Your task to perform on an android device: Go to display settings Image 0: 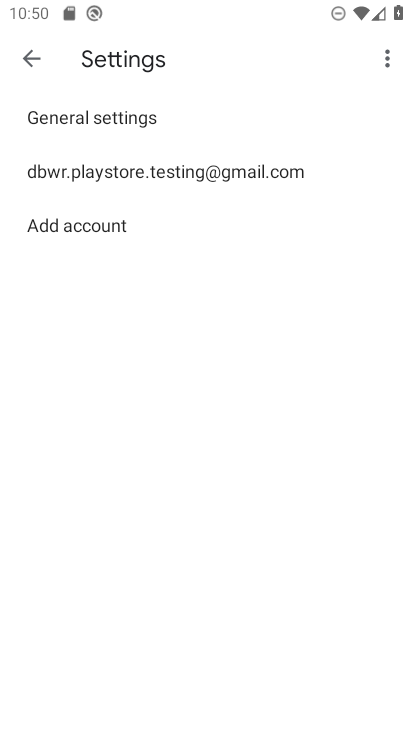
Step 0: press back button
Your task to perform on an android device: Go to display settings Image 1: 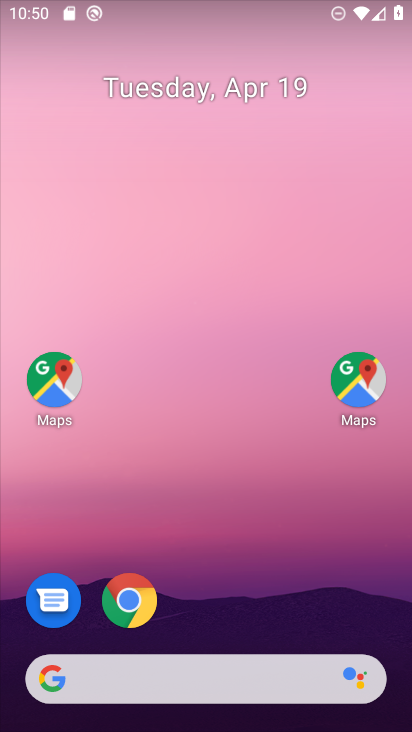
Step 1: drag from (300, 626) to (296, 39)
Your task to perform on an android device: Go to display settings Image 2: 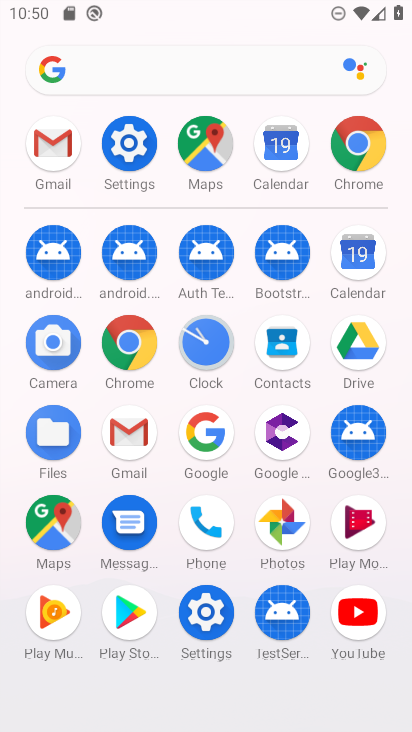
Step 2: click (199, 624)
Your task to perform on an android device: Go to display settings Image 3: 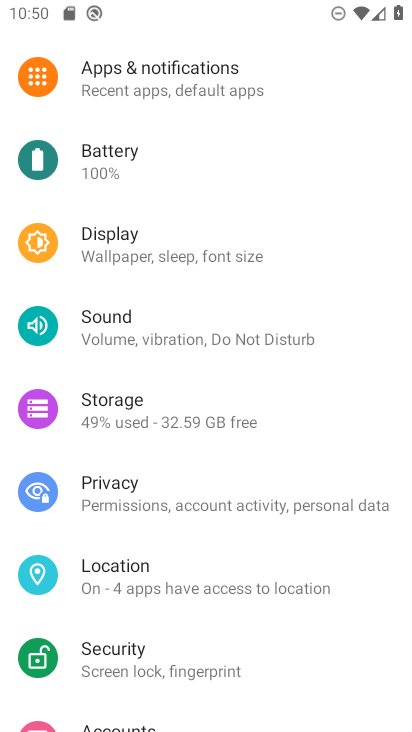
Step 3: click (227, 243)
Your task to perform on an android device: Go to display settings Image 4: 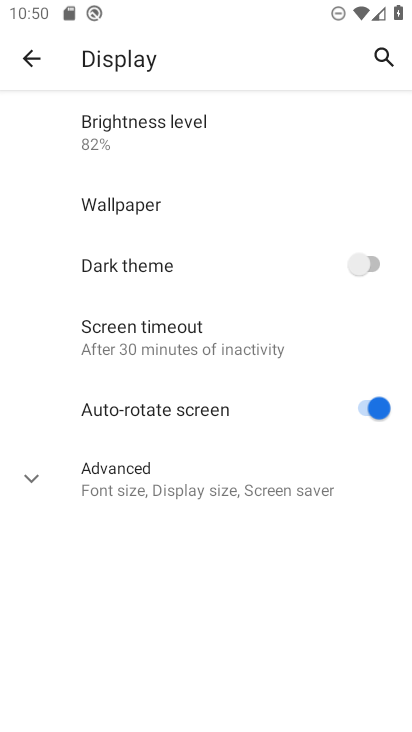
Step 4: task complete